Your task to perform on an android device: open a bookmark in the chrome app Image 0: 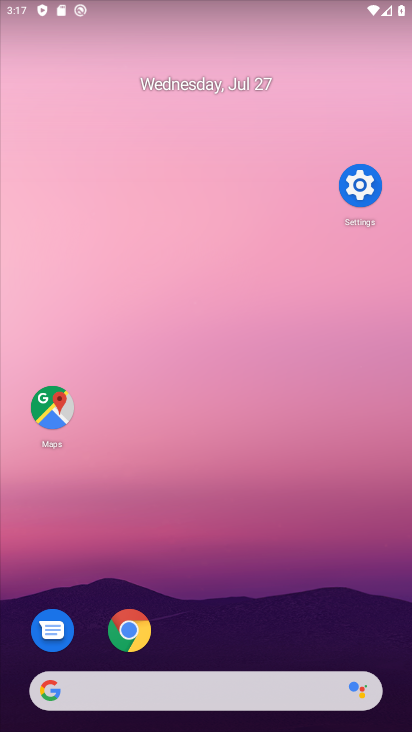
Step 0: press home button
Your task to perform on an android device: open a bookmark in the chrome app Image 1: 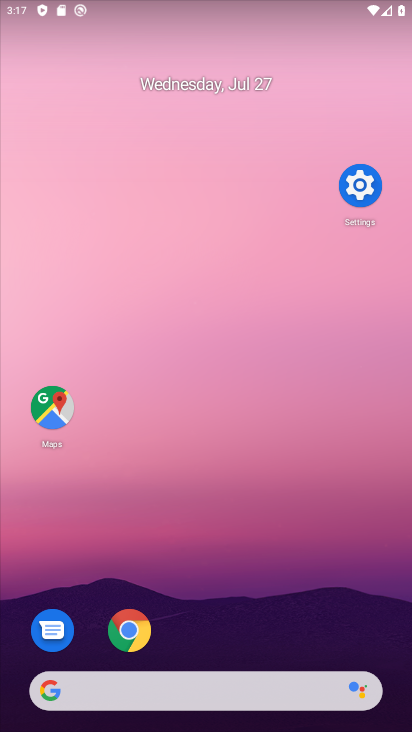
Step 1: click (123, 624)
Your task to perform on an android device: open a bookmark in the chrome app Image 2: 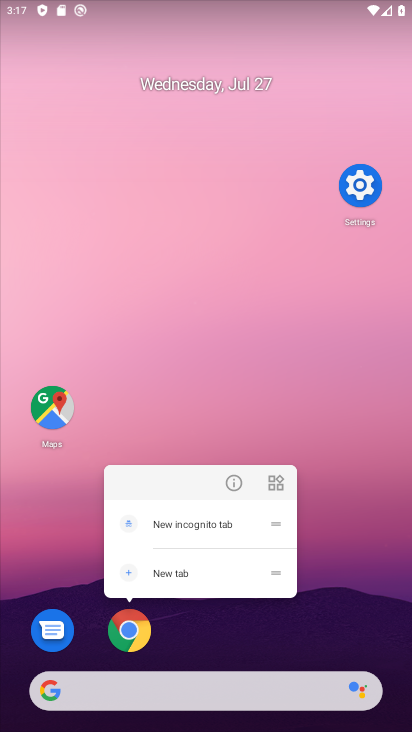
Step 2: click (126, 626)
Your task to perform on an android device: open a bookmark in the chrome app Image 3: 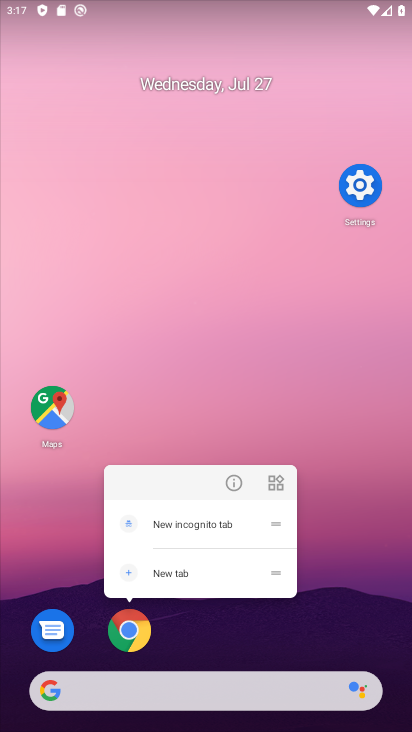
Step 3: click (126, 626)
Your task to perform on an android device: open a bookmark in the chrome app Image 4: 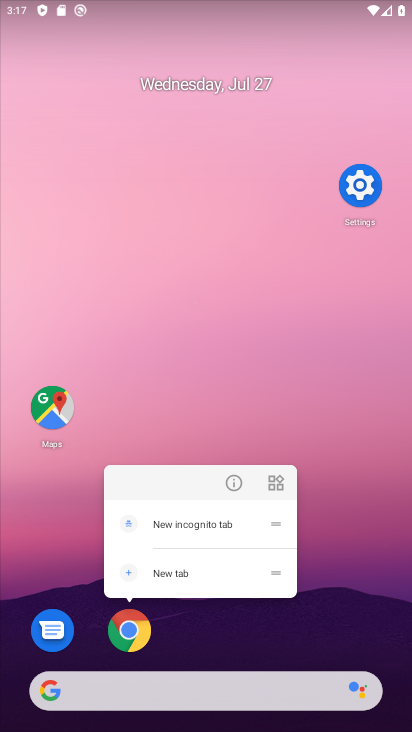
Step 4: click (126, 626)
Your task to perform on an android device: open a bookmark in the chrome app Image 5: 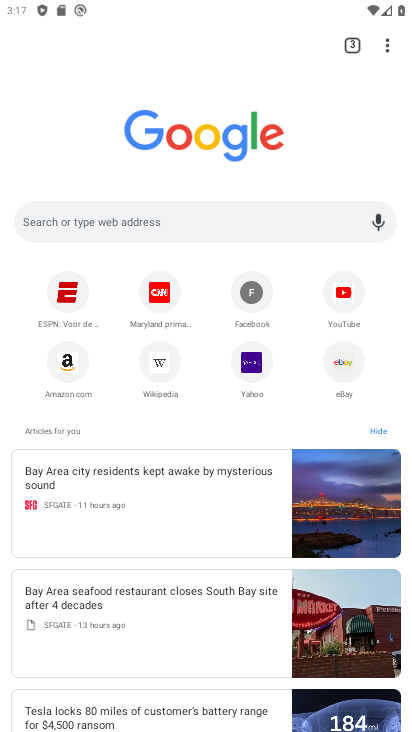
Step 5: task complete